Your task to perform on an android device: What's the weather going to be this weekend? Image 0: 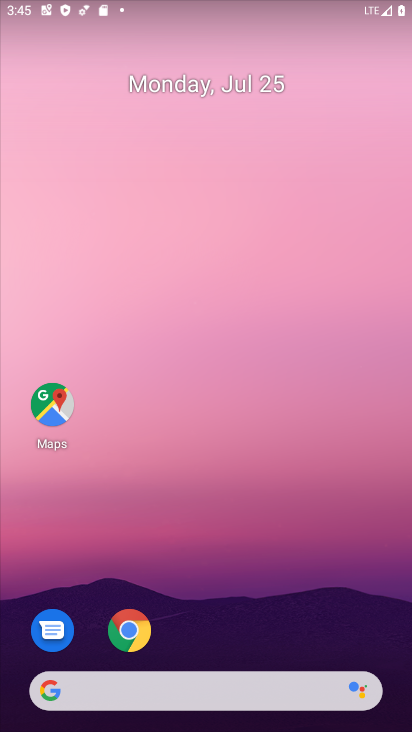
Step 0: click (173, 696)
Your task to perform on an android device: What's the weather going to be this weekend? Image 1: 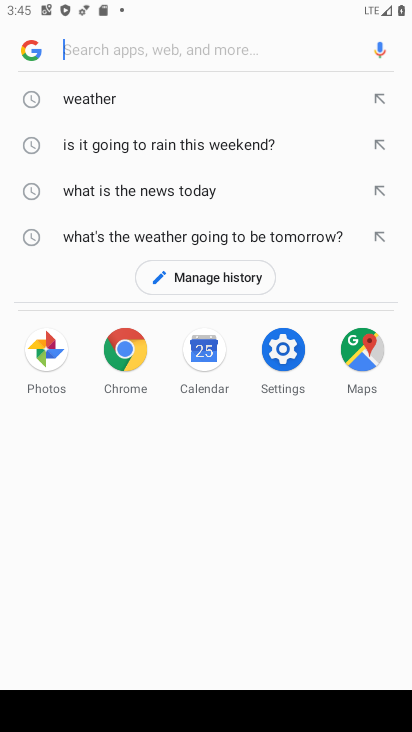
Step 1: click (100, 99)
Your task to perform on an android device: What's the weather going to be this weekend? Image 2: 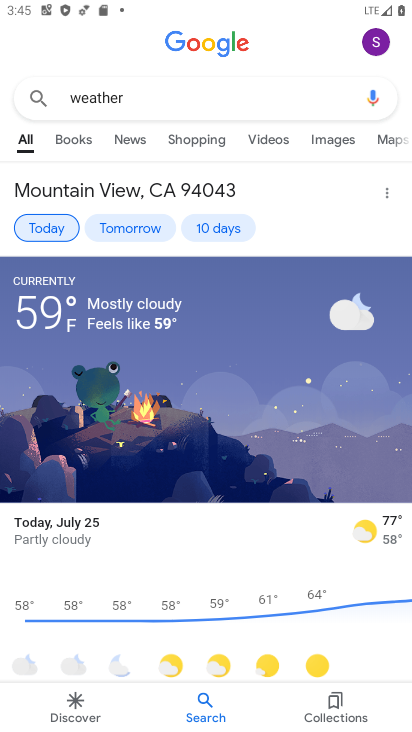
Step 2: click (212, 226)
Your task to perform on an android device: What's the weather going to be this weekend? Image 3: 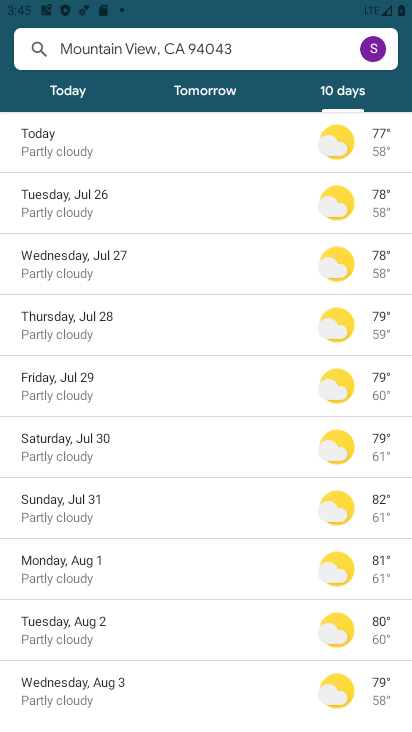
Step 3: task complete